Your task to perform on an android device: turn notification dots off Image 0: 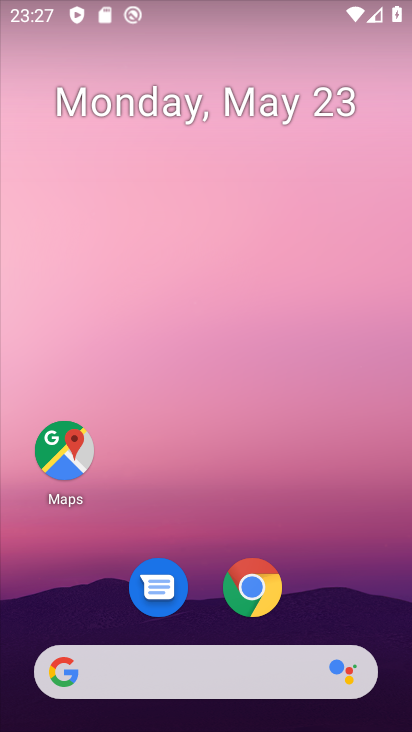
Step 0: drag from (324, 608) to (224, 88)
Your task to perform on an android device: turn notification dots off Image 1: 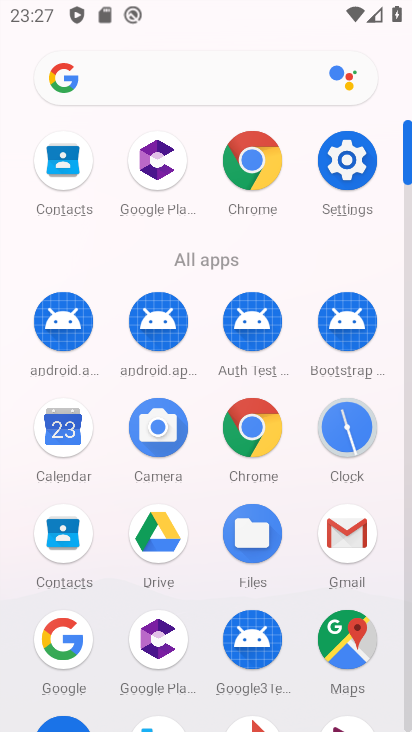
Step 1: click (349, 161)
Your task to perform on an android device: turn notification dots off Image 2: 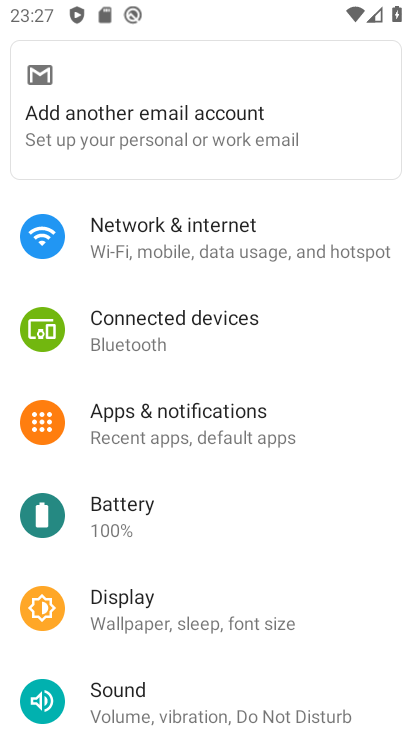
Step 2: click (182, 420)
Your task to perform on an android device: turn notification dots off Image 3: 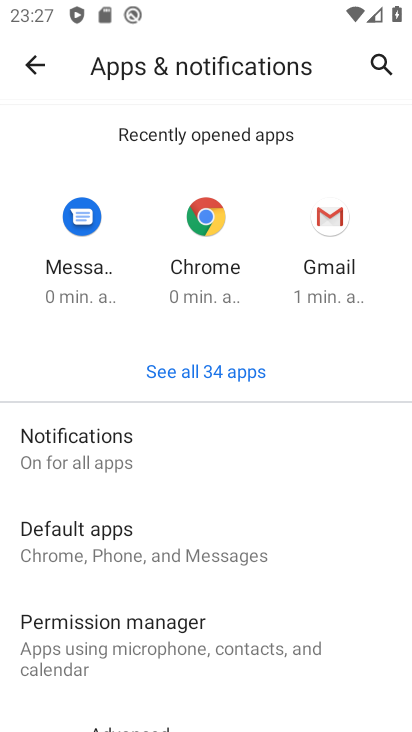
Step 3: click (72, 439)
Your task to perform on an android device: turn notification dots off Image 4: 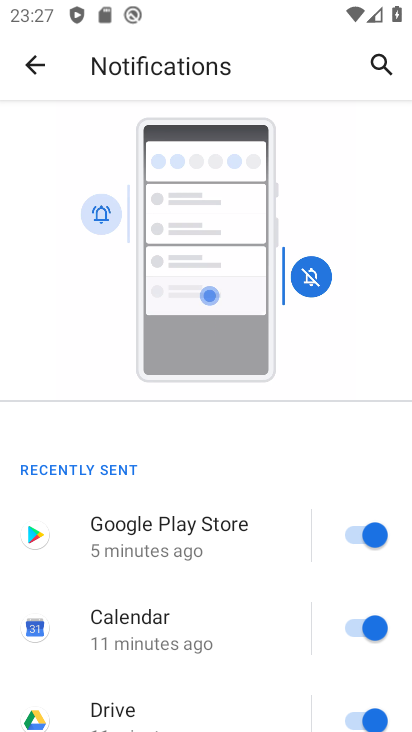
Step 4: drag from (207, 600) to (259, 443)
Your task to perform on an android device: turn notification dots off Image 5: 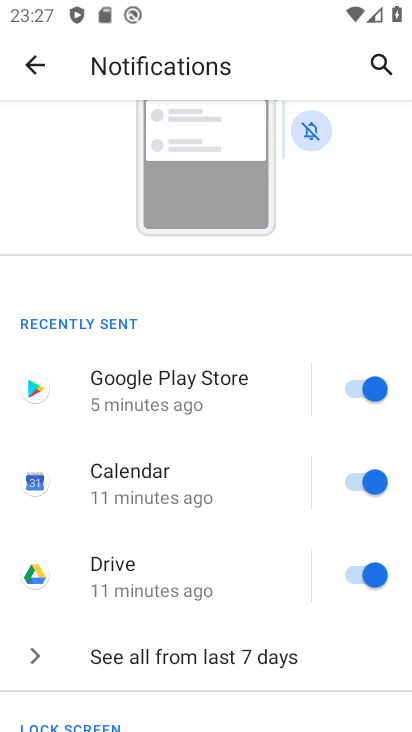
Step 5: drag from (166, 564) to (244, 416)
Your task to perform on an android device: turn notification dots off Image 6: 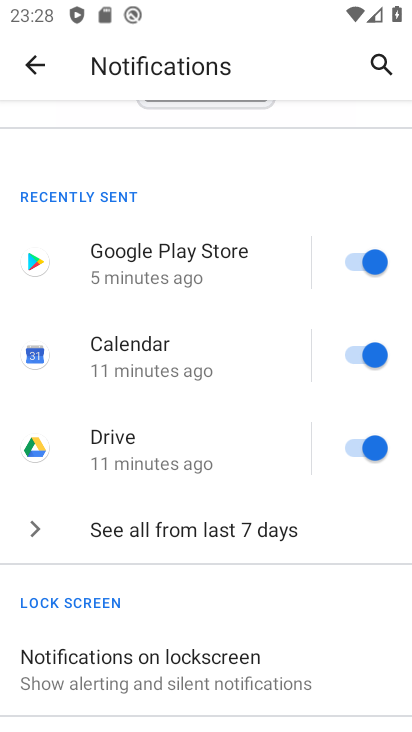
Step 6: drag from (171, 593) to (237, 458)
Your task to perform on an android device: turn notification dots off Image 7: 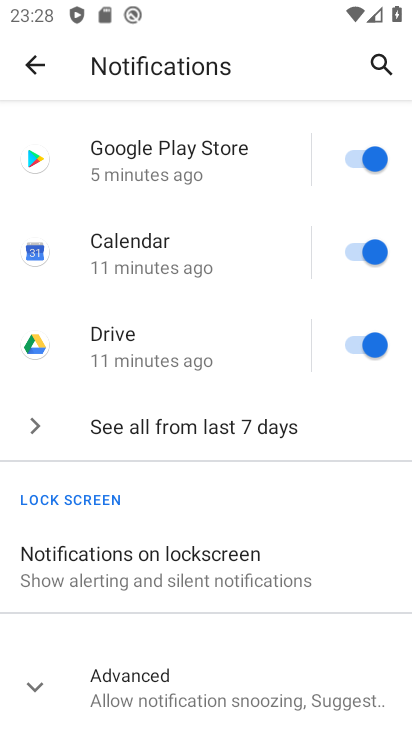
Step 7: click (191, 696)
Your task to perform on an android device: turn notification dots off Image 8: 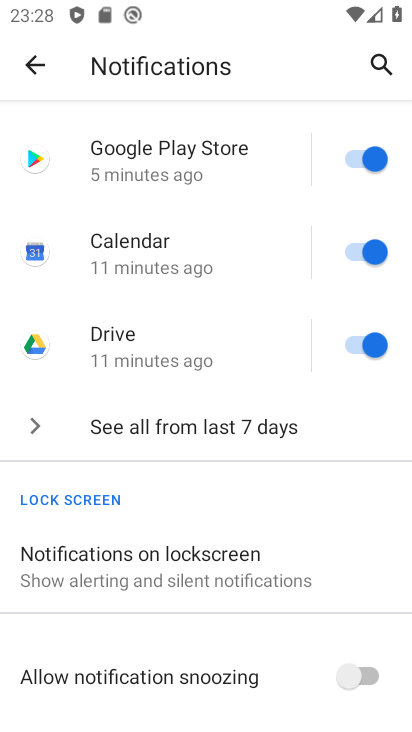
Step 8: drag from (177, 621) to (216, 511)
Your task to perform on an android device: turn notification dots off Image 9: 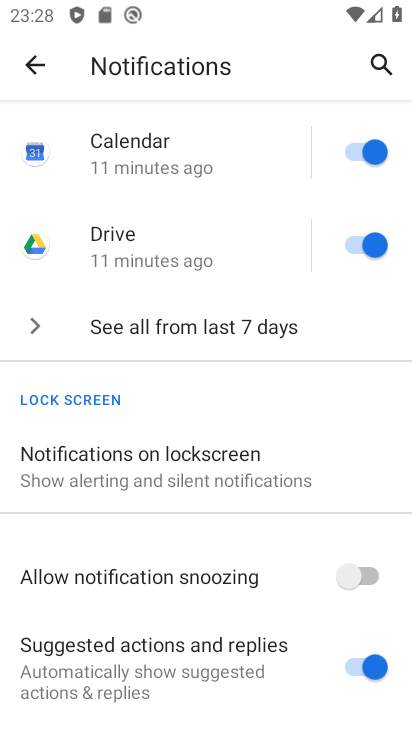
Step 9: drag from (206, 710) to (239, 584)
Your task to perform on an android device: turn notification dots off Image 10: 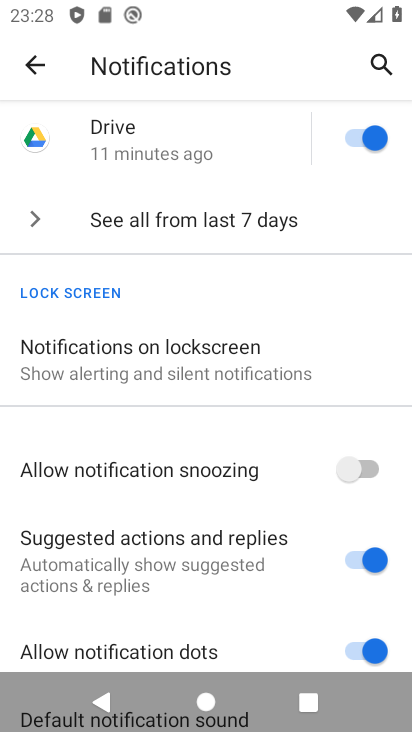
Step 10: drag from (205, 623) to (234, 521)
Your task to perform on an android device: turn notification dots off Image 11: 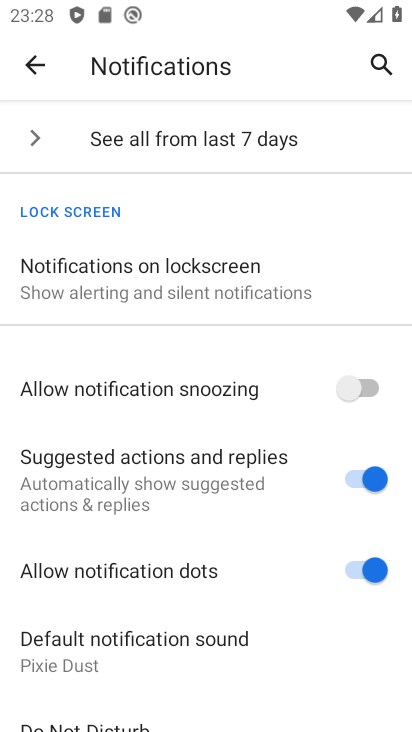
Step 11: click (346, 571)
Your task to perform on an android device: turn notification dots off Image 12: 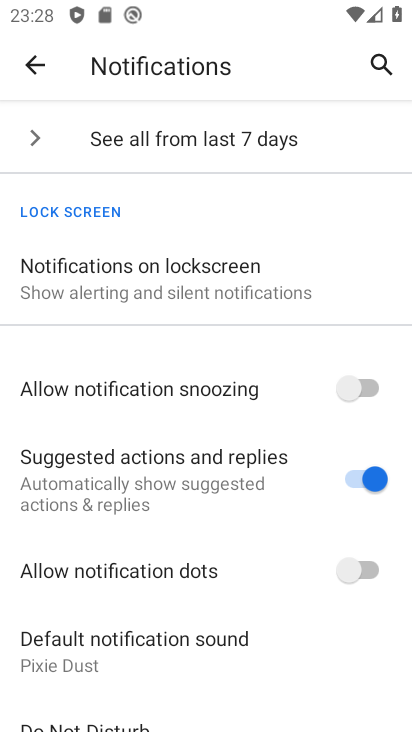
Step 12: task complete